Your task to perform on an android device: Open internet settings Image 0: 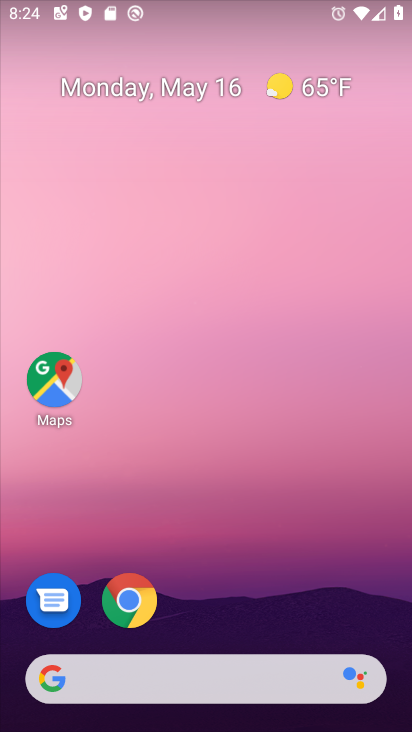
Step 0: drag from (203, 611) to (284, 93)
Your task to perform on an android device: Open internet settings Image 1: 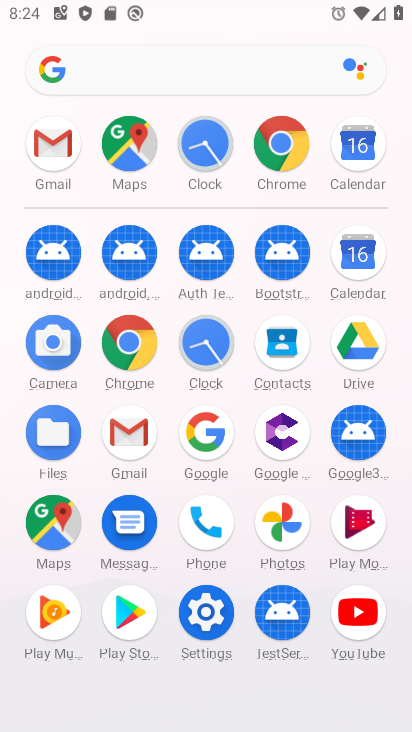
Step 1: click (200, 605)
Your task to perform on an android device: Open internet settings Image 2: 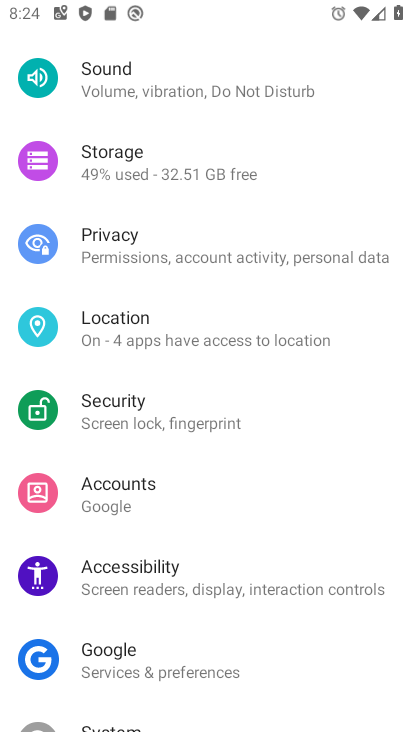
Step 2: drag from (200, 147) to (274, 683)
Your task to perform on an android device: Open internet settings Image 3: 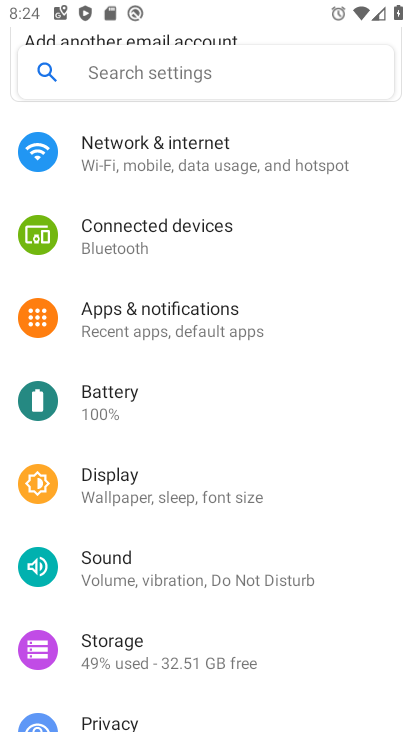
Step 3: drag from (192, 191) to (320, 720)
Your task to perform on an android device: Open internet settings Image 4: 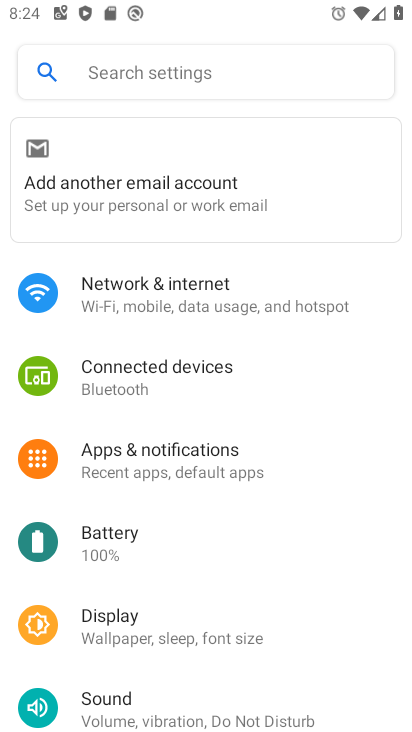
Step 4: click (206, 307)
Your task to perform on an android device: Open internet settings Image 5: 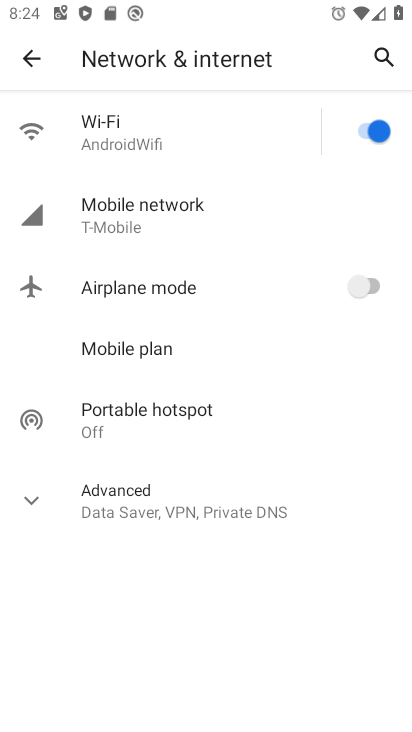
Step 5: task complete